Your task to perform on an android device: Open the phone app and click the voicemail tab. Image 0: 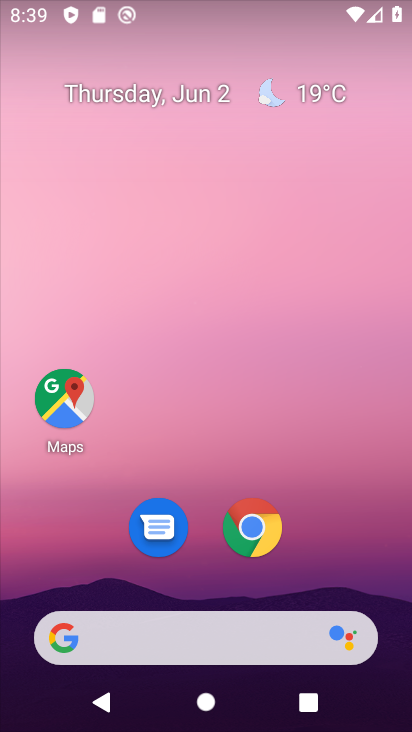
Step 0: drag from (342, 550) to (257, 140)
Your task to perform on an android device: Open the phone app and click the voicemail tab. Image 1: 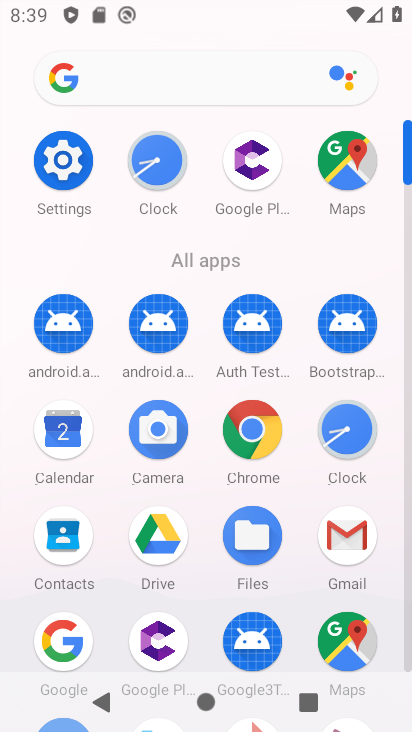
Step 1: click (407, 665)
Your task to perform on an android device: Open the phone app and click the voicemail tab. Image 2: 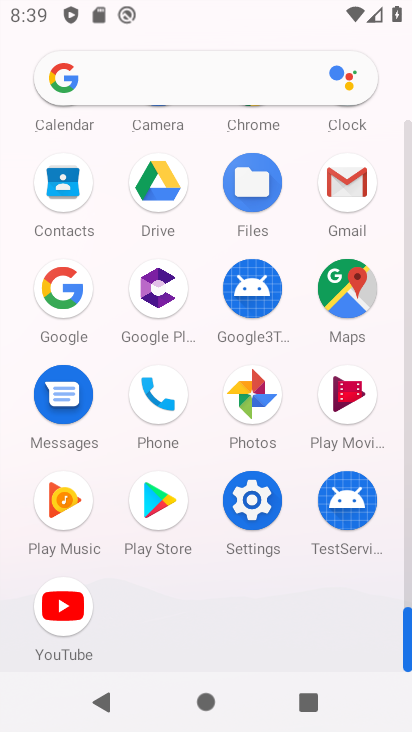
Step 2: click (165, 412)
Your task to perform on an android device: Open the phone app and click the voicemail tab. Image 3: 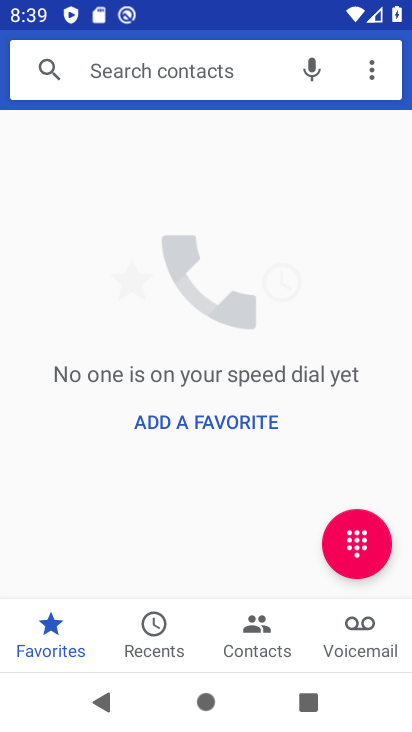
Step 3: click (344, 621)
Your task to perform on an android device: Open the phone app and click the voicemail tab. Image 4: 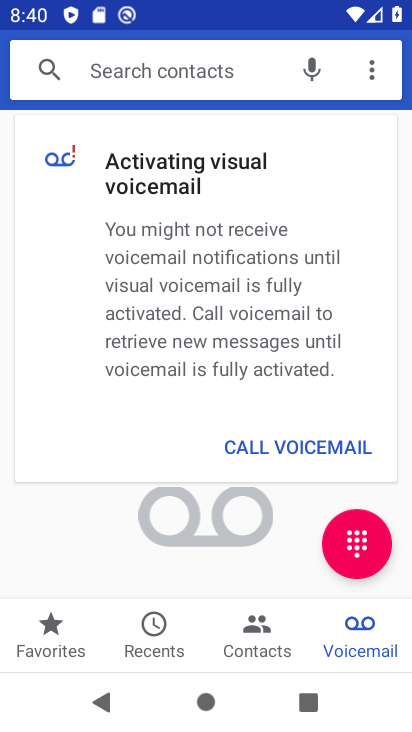
Step 4: task complete